Your task to perform on an android device: find which apps use the phone's location Image 0: 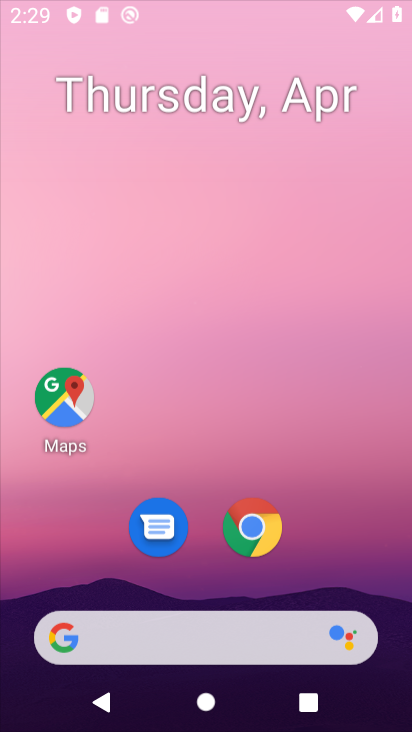
Step 0: click (389, 356)
Your task to perform on an android device: find which apps use the phone's location Image 1: 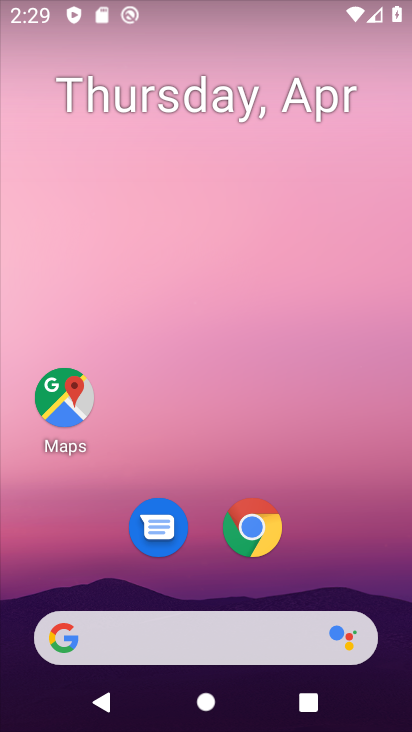
Step 1: drag from (186, 575) to (254, 63)
Your task to perform on an android device: find which apps use the phone's location Image 2: 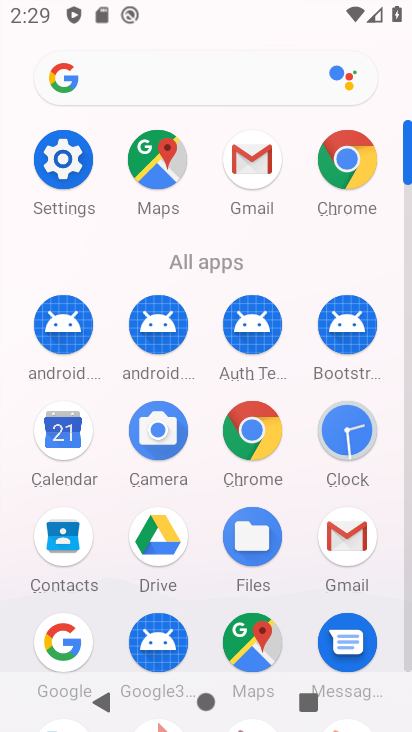
Step 2: click (63, 173)
Your task to perform on an android device: find which apps use the phone's location Image 3: 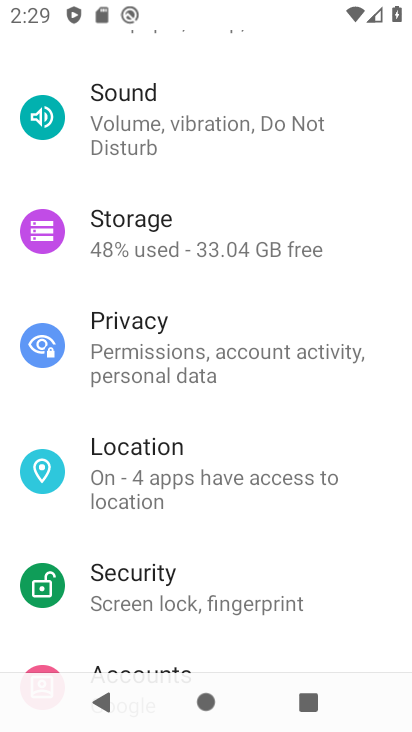
Step 3: click (212, 235)
Your task to perform on an android device: find which apps use the phone's location Image 4: 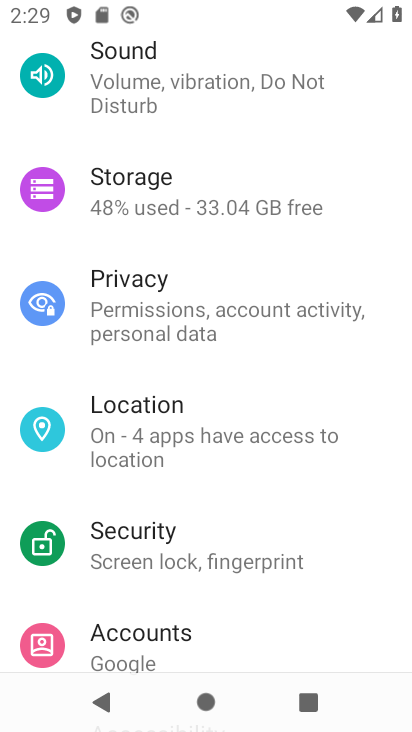
Step 4: click (162, 431)
Your task to perform on an android device: find which apps use the phone's location Image 5: 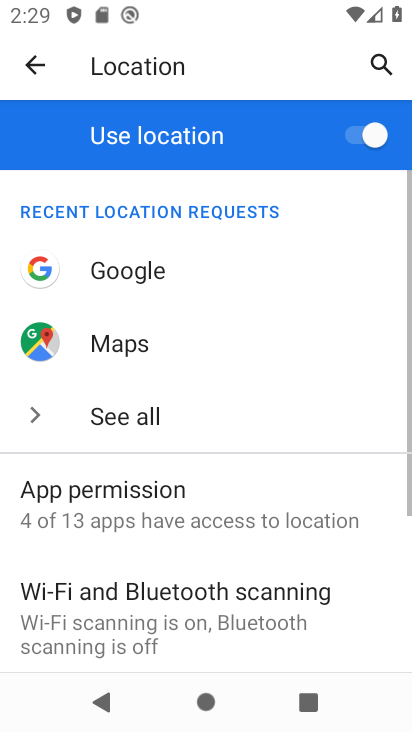
Step 5: drag from (153, 559) to (201, 311)
Your task to perform on an android device: find which apps use the phone's location Image 6: 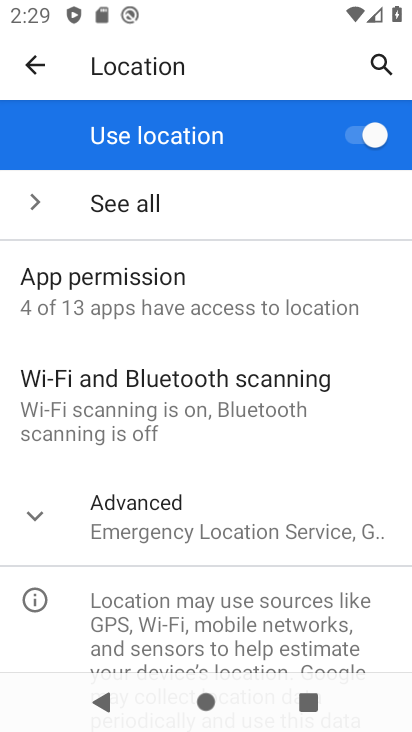
Step 6: click (181, 319)
Your task to perform on an android device: find which apps use the phone's location Image 7: 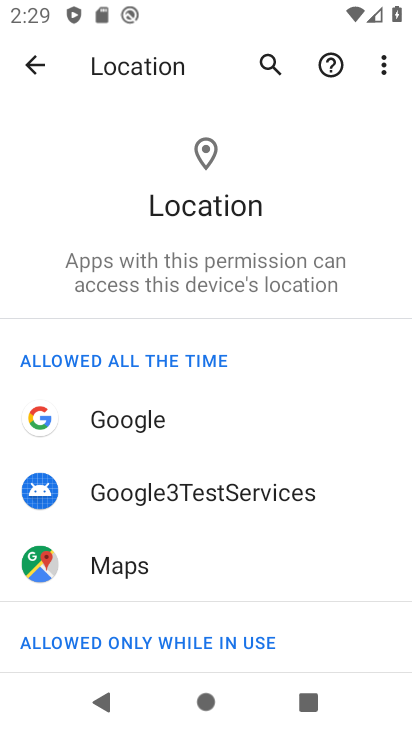
Step 7: task complete